Your task to perform on an android device: turn off wifi Image 0: 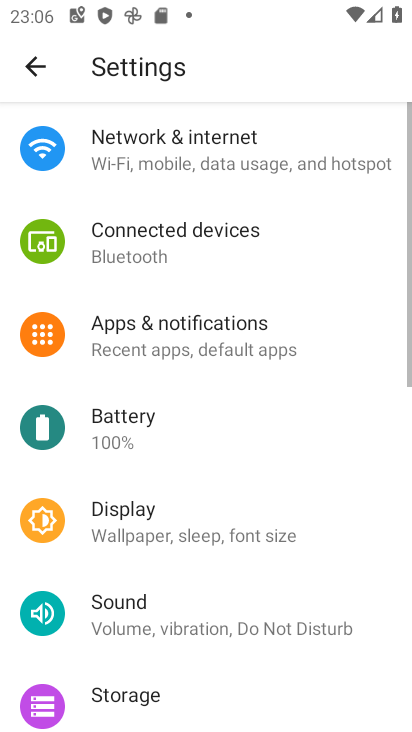
Step 0: drag from (199, 588) to (261, 0)
Your task to perform on an android device: turn off wifi Image 1: 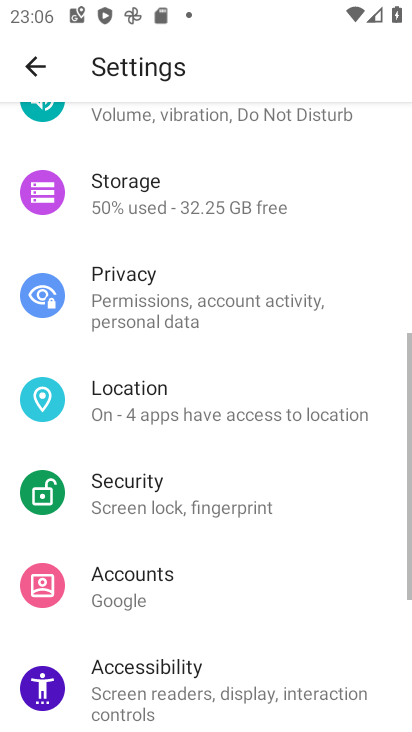
Step 1: drag from (227, 161) to (198, 729)
Your task to perform on an android device: turn off wifi Image 2: 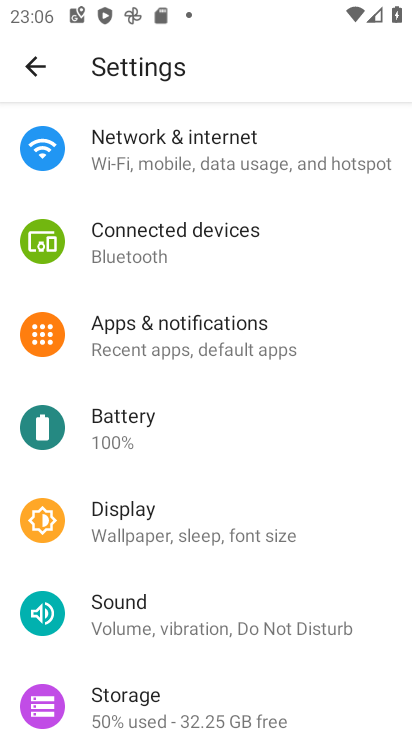
Step 2: drag from (181, 251) to (224, 551)
Your task to perform on an android device: turn off wifi Image 3: 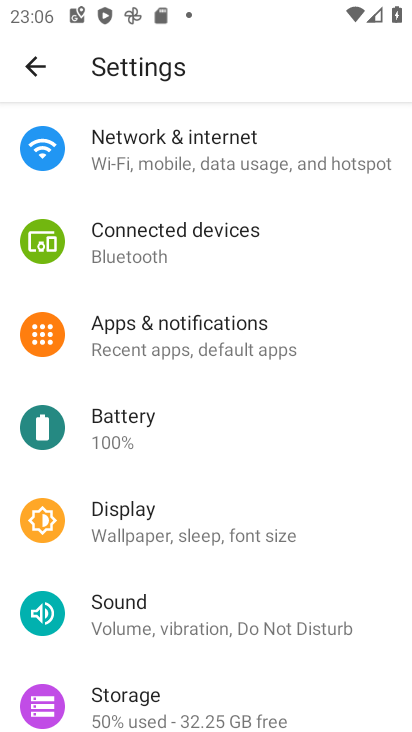
Step 3: click (188, 175)
Your task to perform on an android device: turn off wifi Image 4: 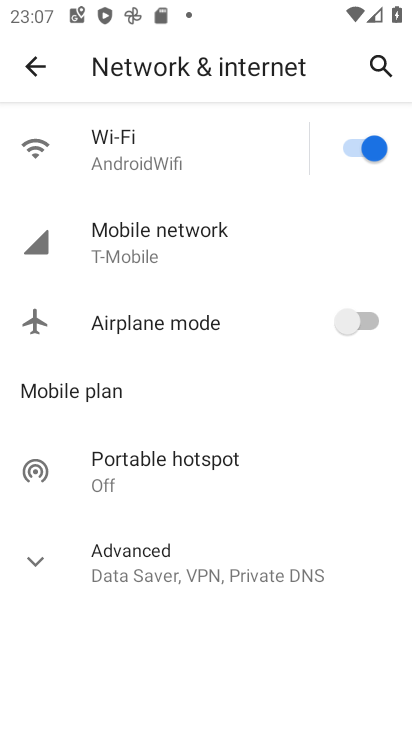
Step 4: task complete